Your task to perform on an android device: empty trash in the gmail app Image 0: 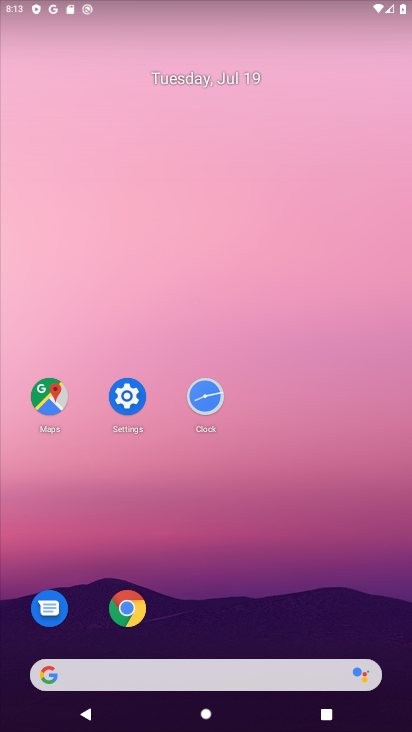
Step 0: drag from (396, 718) to (305, 22)
Your task to perform on an android device: empty trash in the gmail app Image 1: 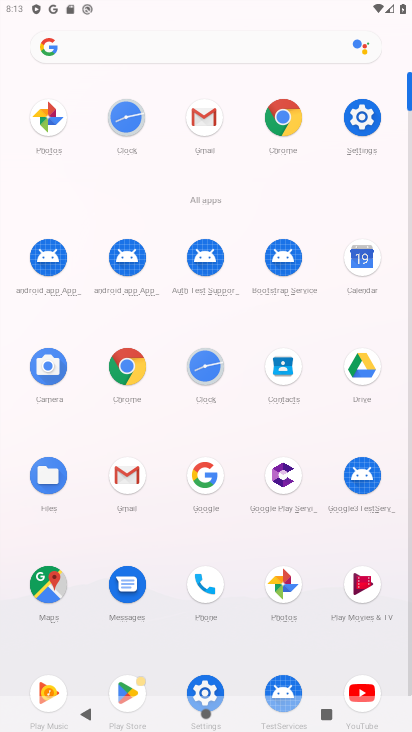
Step 1: click (111, 475)
Your task to perform on an android device: empty trash in the gmail app Image 2: 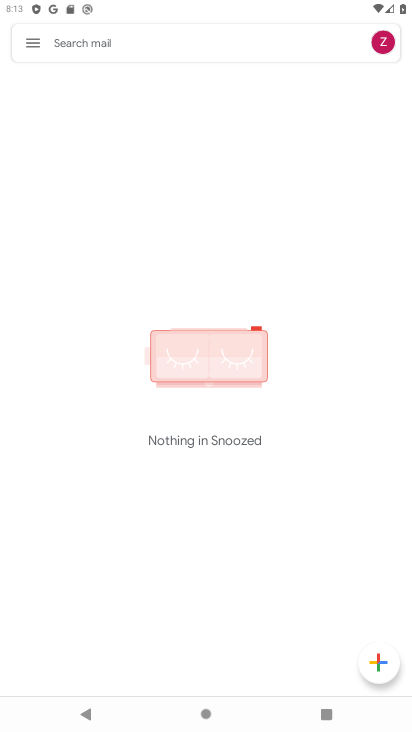
Step 2: click (32, 46)
Your task to perform on an android device: empty trash in the gmail app Image 3: 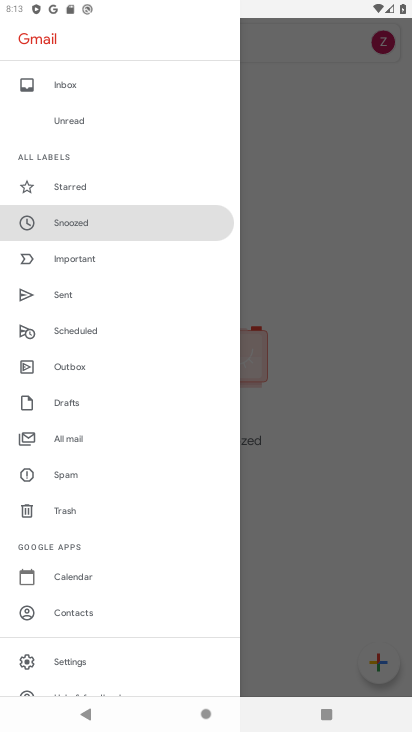
Step 3: click (59, 508)
Your task to perform on an android device: empty trash in the gmail app Image 4: 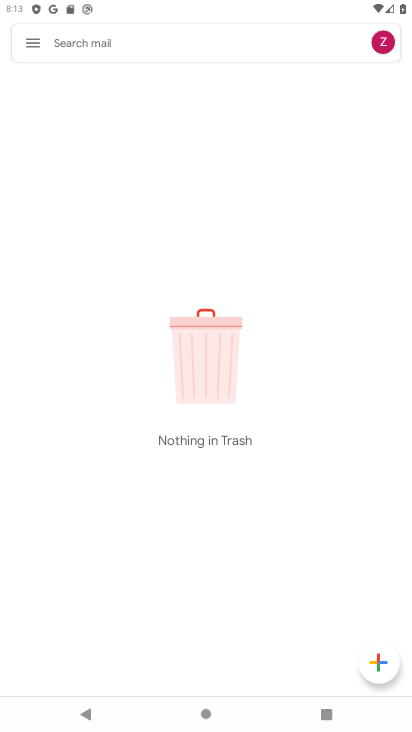
Step 4: task complete